Your task to perform on an android device: Do I have any events today? Image 0: 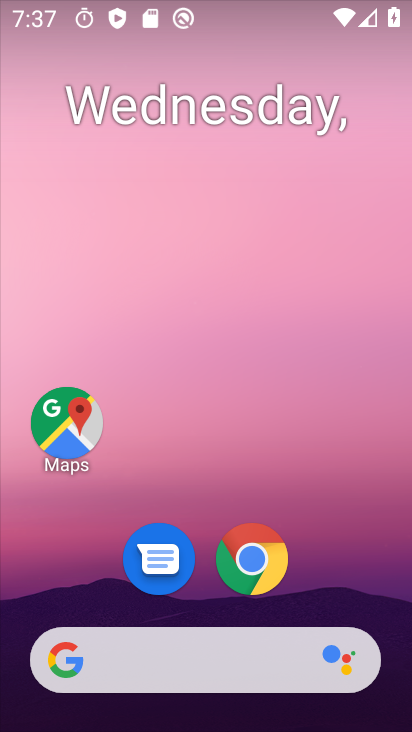
Step 0: drag from (324, 543) to (303, 6)
Your task to perform on an android device: Do I have any events today? Image 1: 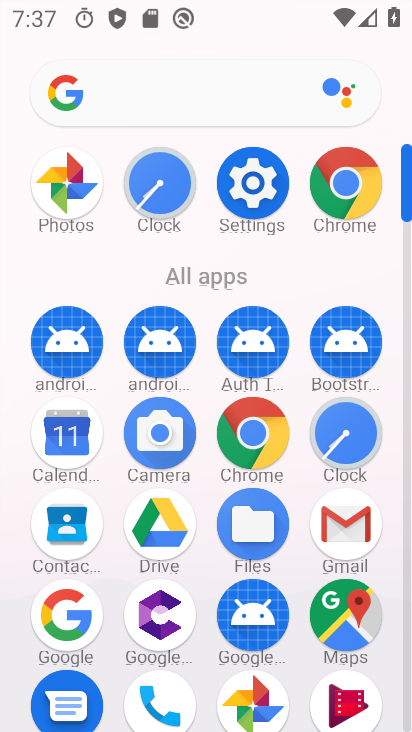
Step 1: click (69, 441)
Your task to perform on an android device: Do I have any events today? Image 2: 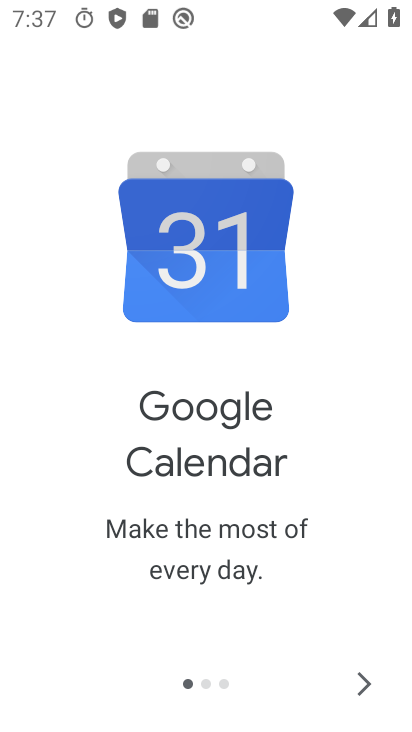
Step 2: click (367, 690)
Your task to perform on an android device: Do I have any events today? Image 3: 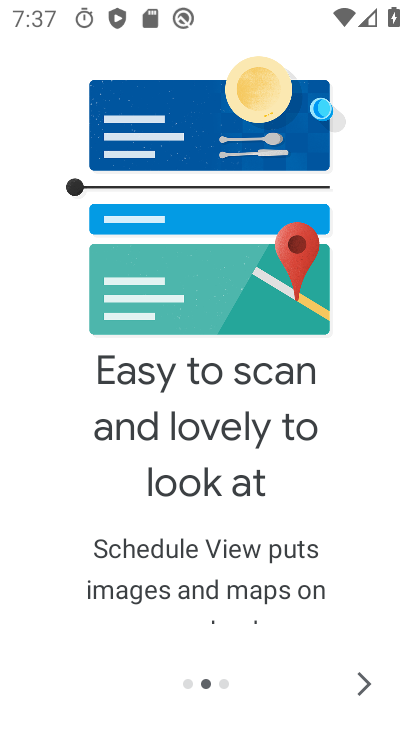
Step 3: click (367, 690)
Your task to perform on an android device: Do I have any events today? Image 4: 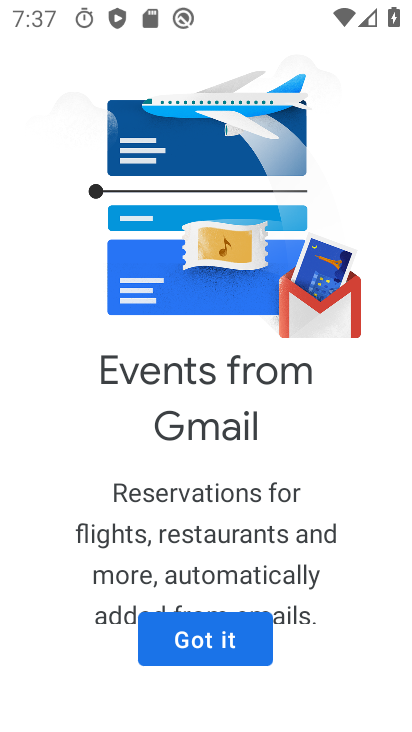
Step 4: click (225, 645)
Your task to perform on an android device: Do I have any events today? Image 5: 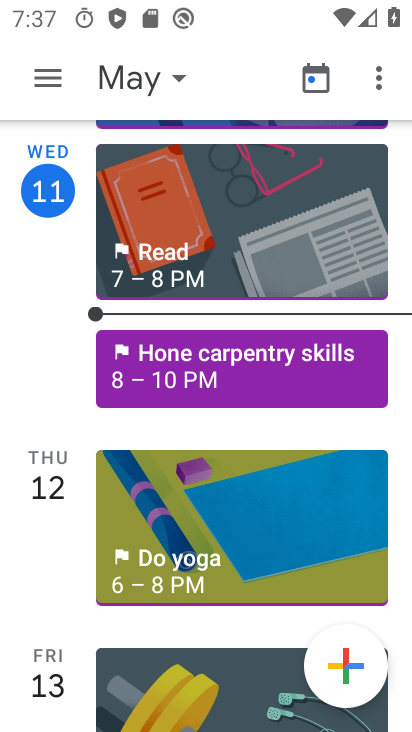
Step 5: click (180, 84)
Your task to perform on an android device: Do I have any events today? Image 6: 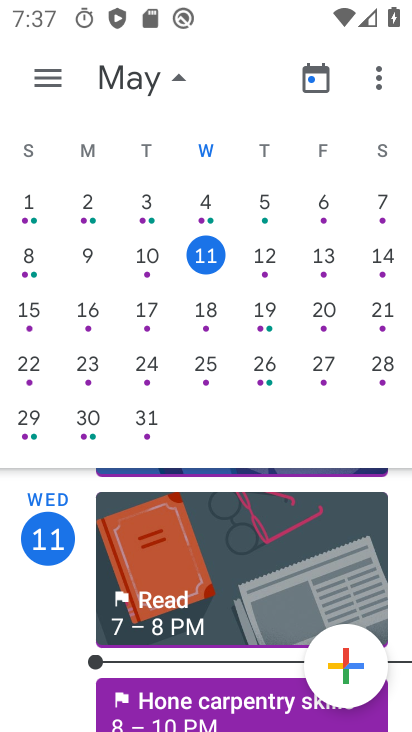
Step 6: click (194, 265)
Your task to perform on an android device: Do I have any events today? Image 7: 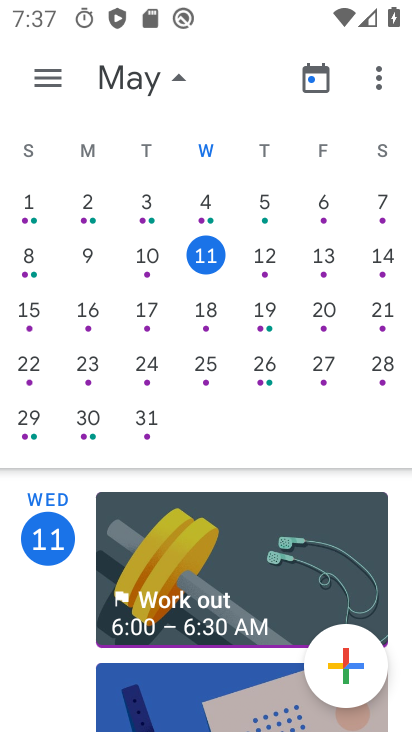
Step 7: drag from (160, 553) to (154, 199)
Your task to perform on an android device: Do I have any events today? Image 8: 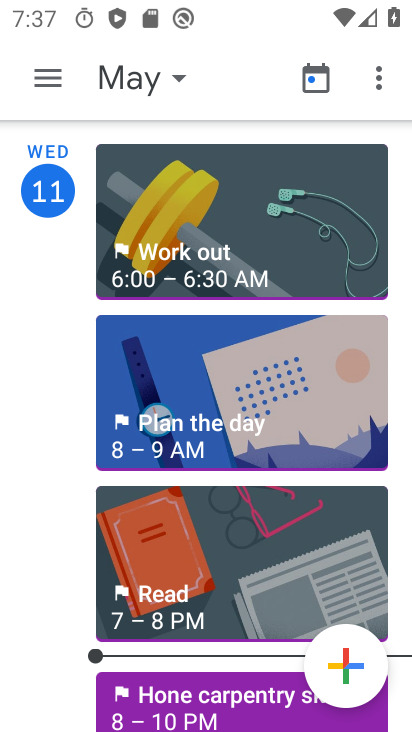
Step 8: drag from (184, 453) to (173, 139)
Your task to perform on an android device: Do I have any events today? Image 9: 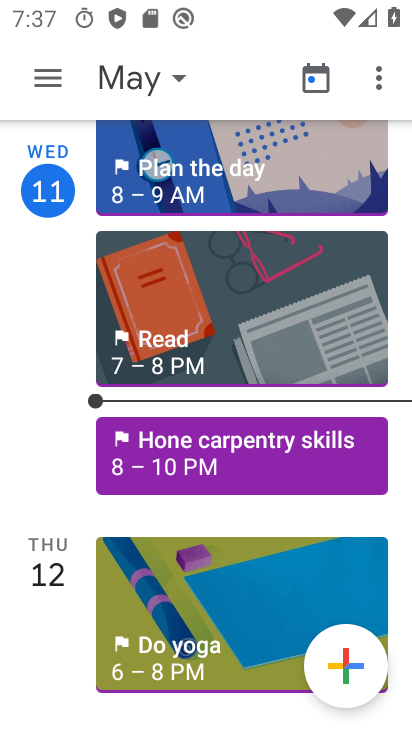
Step 9: click (227, 444)
Your task to perform on an android device: Do I have any events today? Image 10: 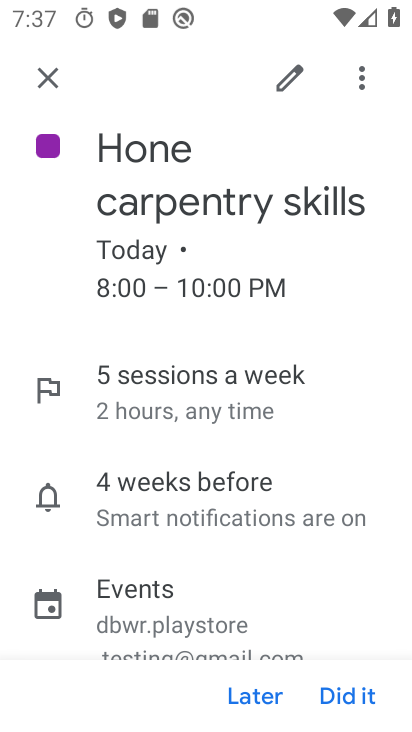
Step 10: task complete